Your task to perform on an android device: Open Google Chrome and open the bookmarks view Image 0: 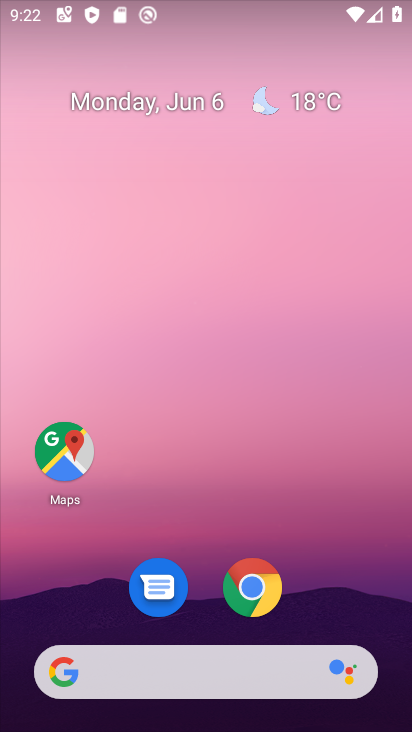
Step 0: click (337, 153)
Your task to perform on an android device: Open Google Chrome and open the bookmarks view Image 1: 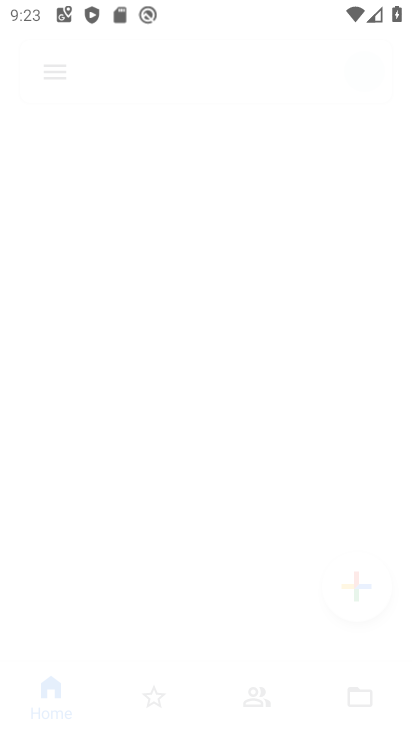
Step 1: drag from (327, 600) to (293, 103)
Your task to perform on an android device: Open Google Chrome and open the bookmarks view Image 2: 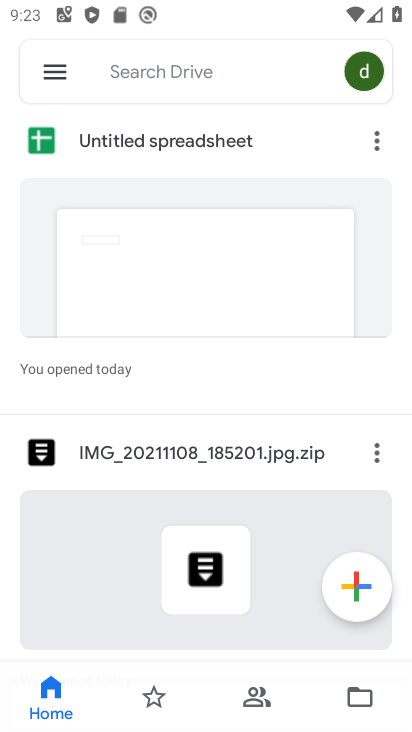
Step 2: press home button
Your task to perform on an android device: Open Google Chrome and open the bookmarks view Image 3: 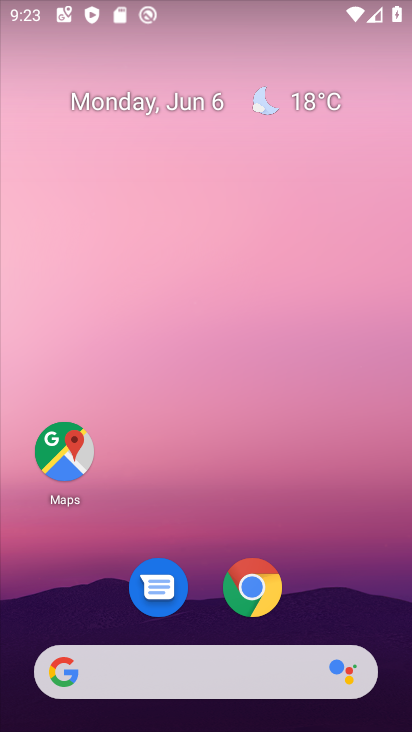
Step 3: click (258, 590)
Your task to perform on an android device: Open Google Chrome and open the bookmarks view Image 4: 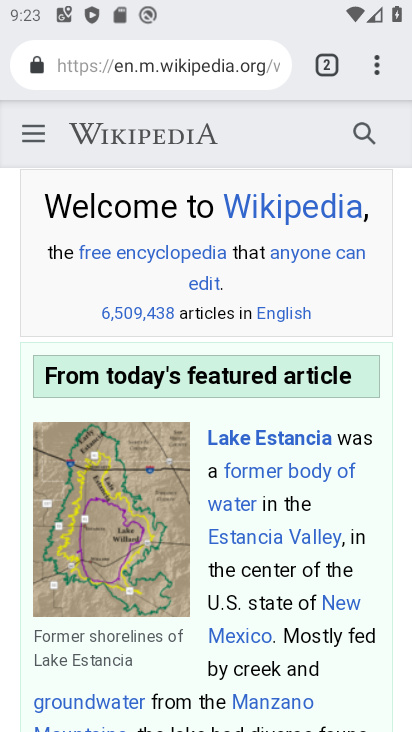
Step 4: task complete